Your task to perform on an android device: Go to Wikipedia Image 0: 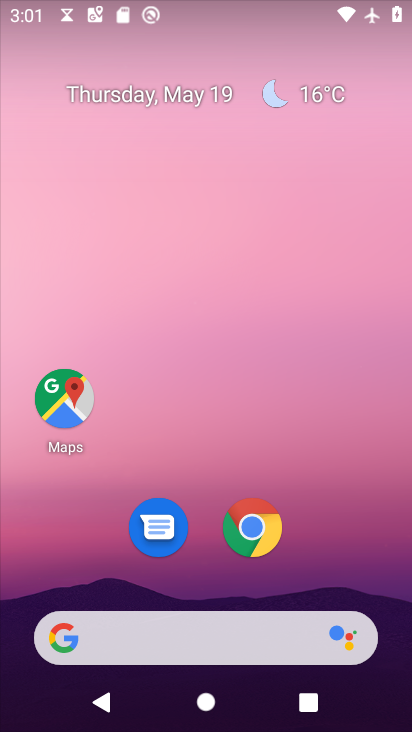
Step 0: click (254, 526)
Your task to perform on an android device: Go to Wikipedia Image 1: 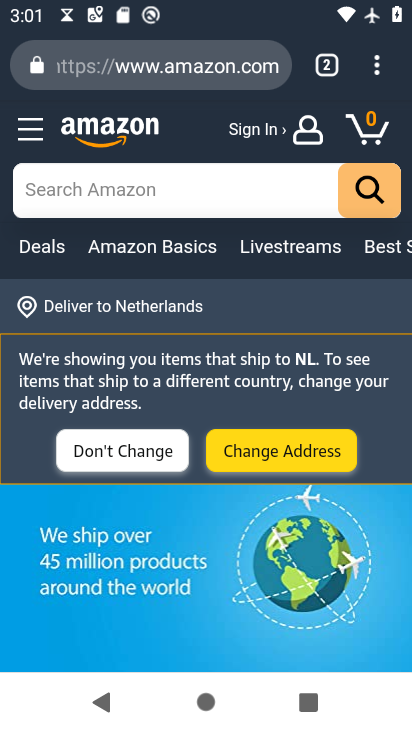
Step 1: click (333, 60)
Your task to perform on an android device: Go to Wikipedia Image 2: 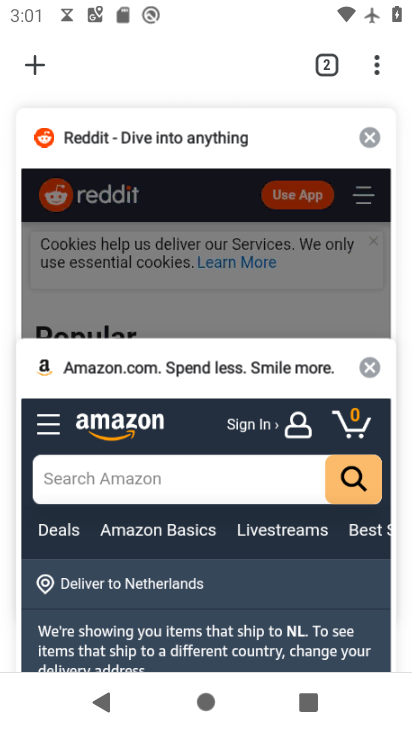
Step 2: click (37, 60)
Your task to perform on an android device: Go to Wikipedia Image 3: 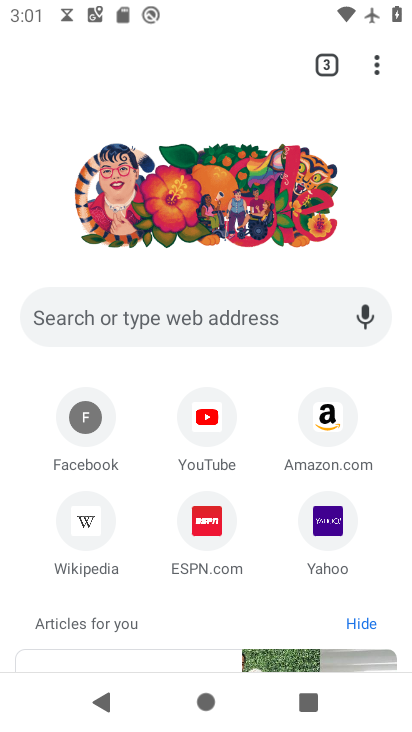
Step 3: click (84, 523)
Your task to perform on an android device: Go to Wikipedia Image 4: 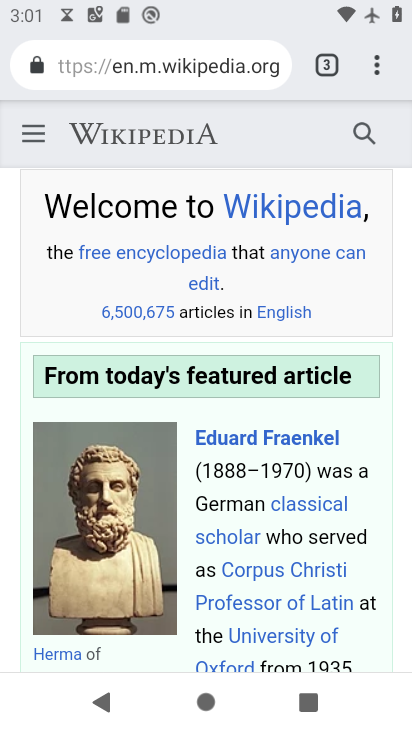
Step 4: task complete